Your task to perform on an android device: open app "WhatsApp Messenger" Image 0: 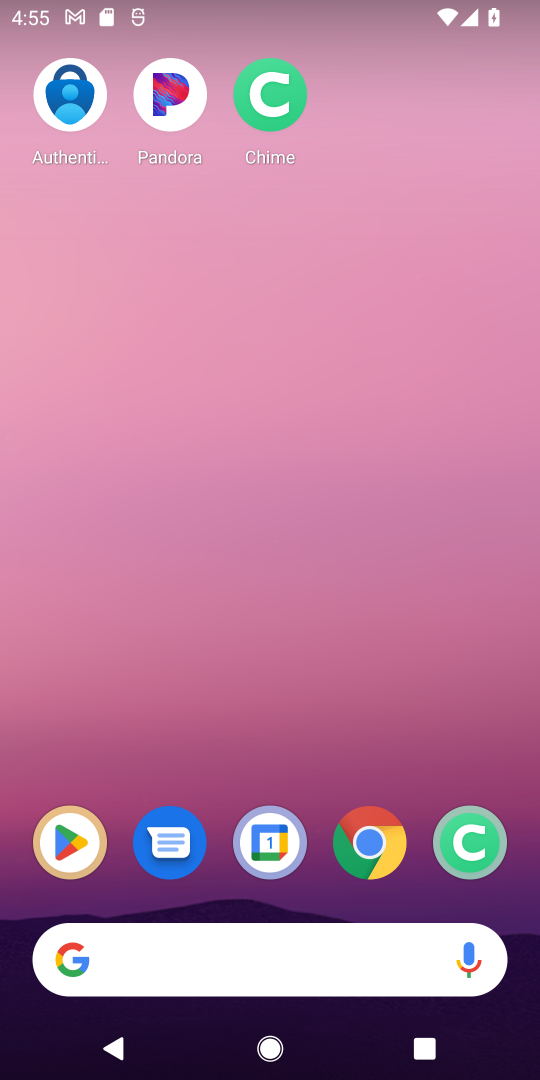
Step 0: drag from (340, 980) to (226, 451)
Your task to perform on an android device: open app "WhatsApp Messenger" Image 1: 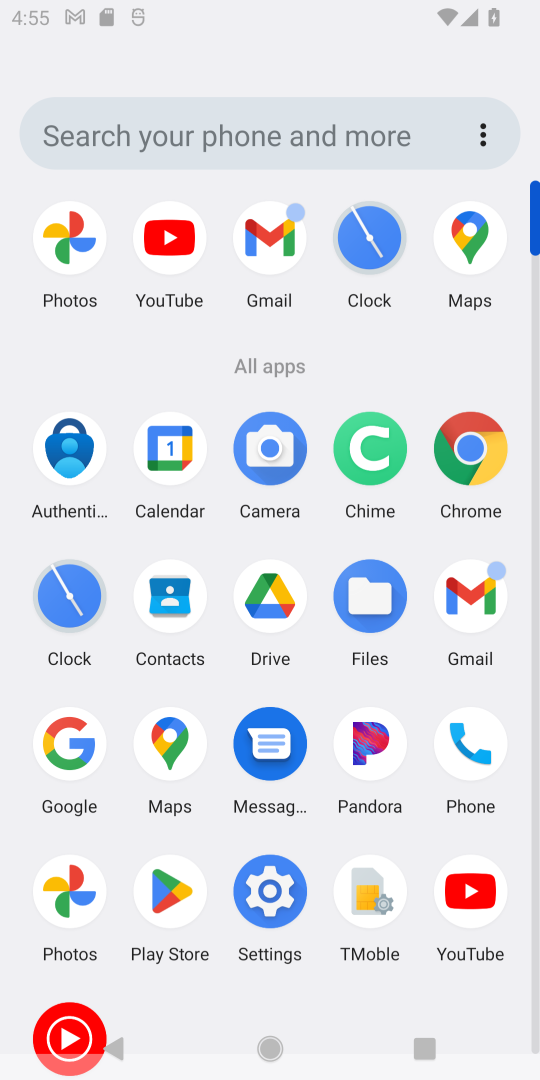
Step 1: click (184, 328)
Your task to perform on an android device: open app "WhatsApp Messenger" Image 2: 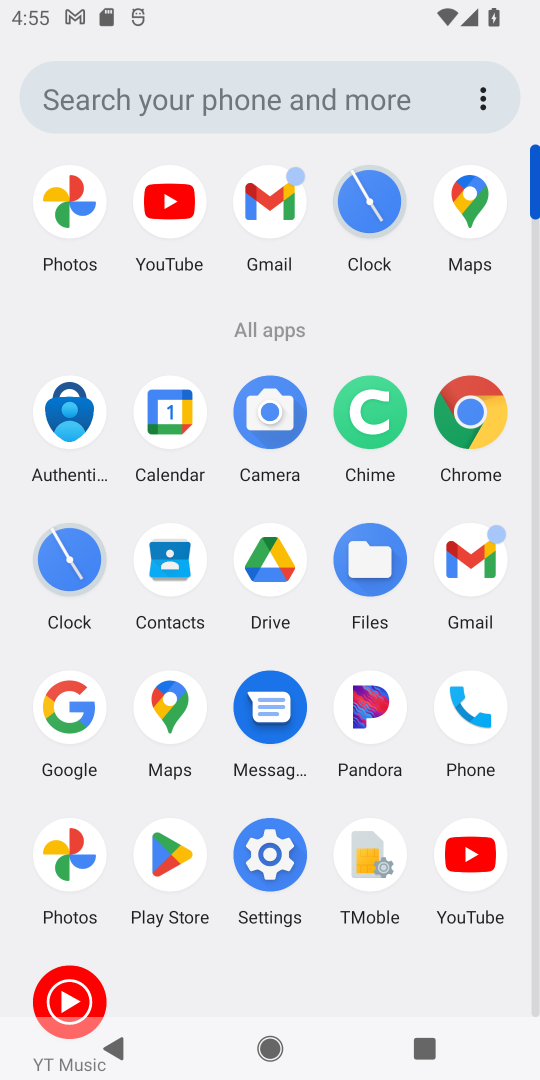
Step 2: drag from (231, 745) to (229, 263)
Your task to perform on an android device: open app "WhatsApp Messenger" Image 3: 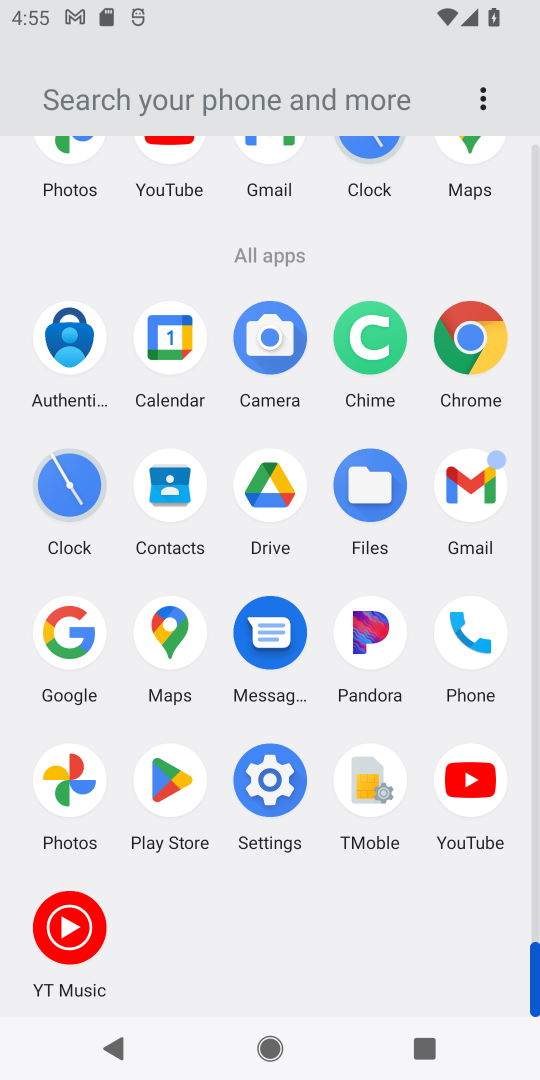
Step 3: click (180, 761)
Your task to perform on an android device: open app "WhatsApp Messenger" Image 4: 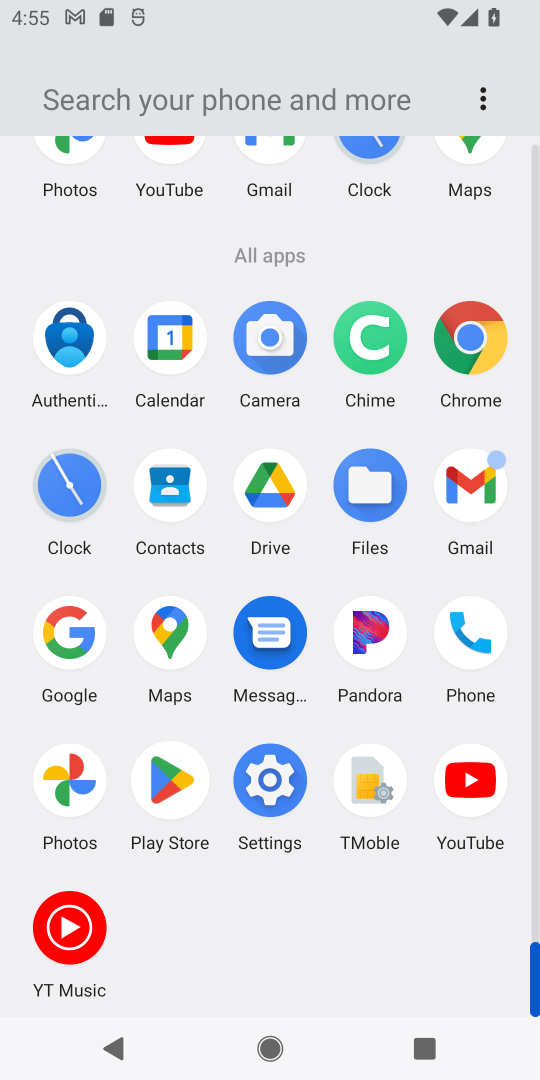
Step 4: click (186, 772)
Your task to perform on an android device: open app "WhatsApp Messenger" Image 5: 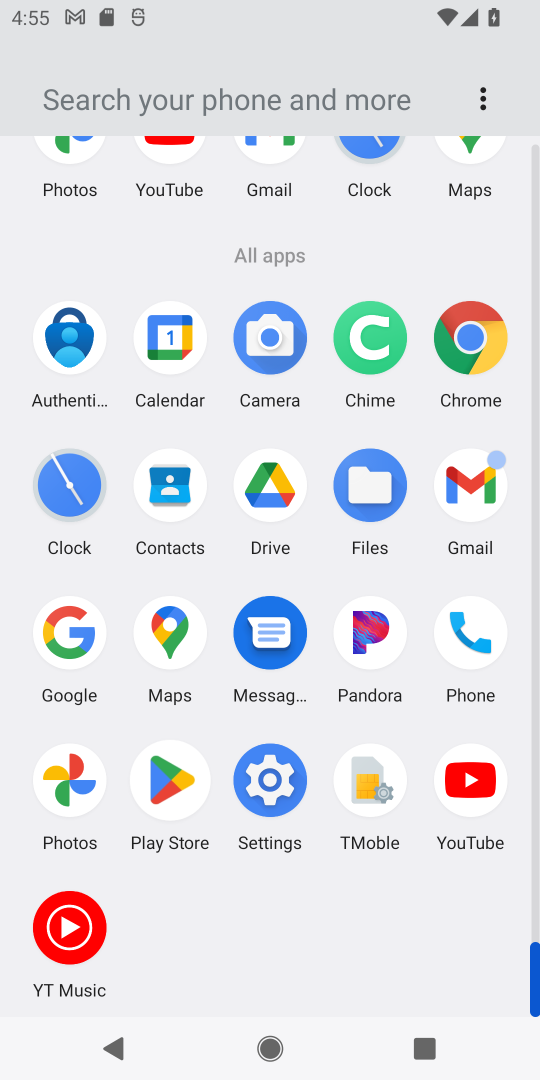
Step 5: click (188, 774)
Your task to perform on an android device: open app "WhatsApp Messenger" Image 6: 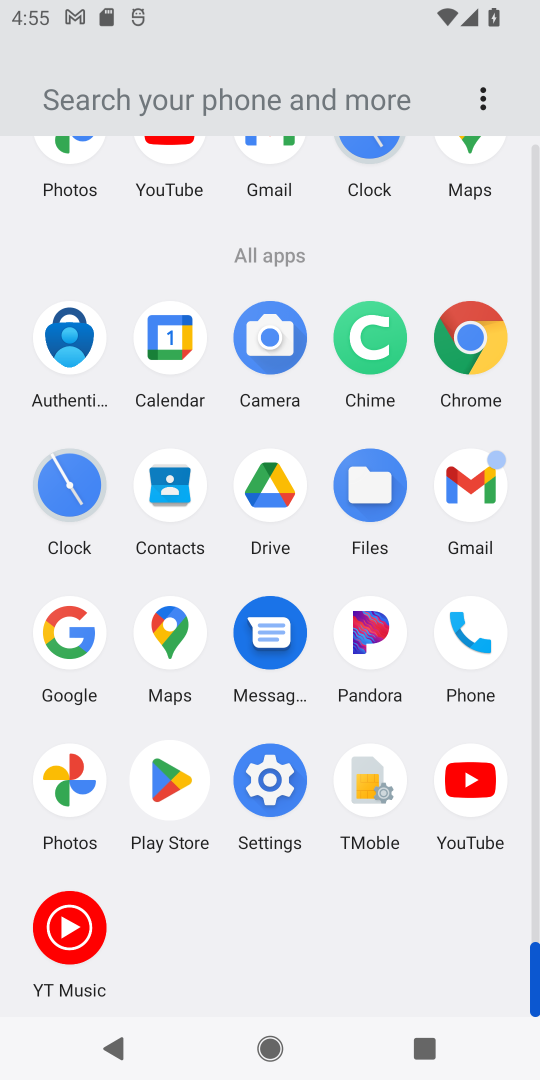
Step 6: click (188, 774)
Your task to perform on an android device: open app "WhatsApp Messenger" Image 7: 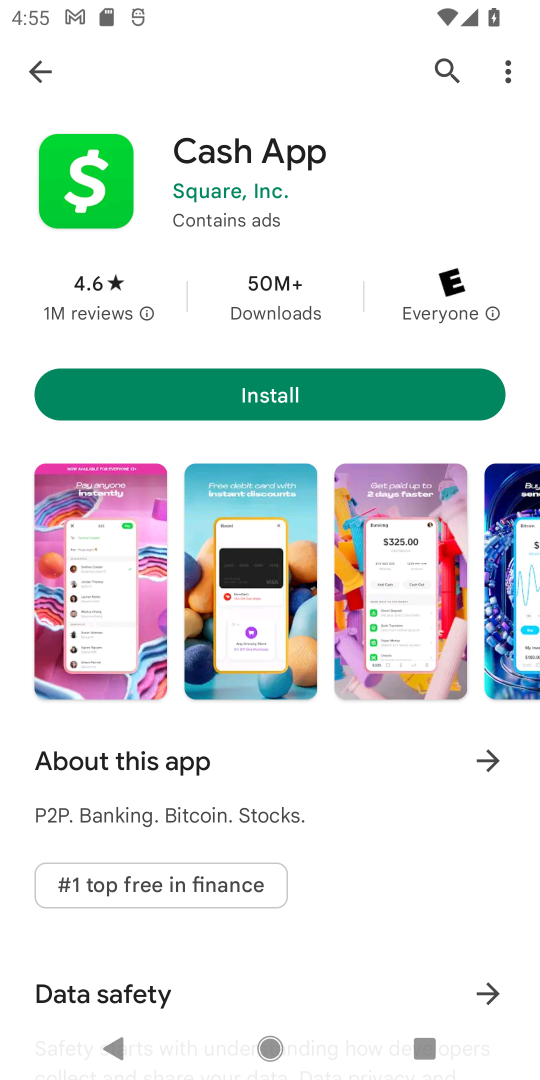
Step 7: click (39, 66)
Your task to perform on an android device: open app "WhatsApp Messenger" Image 8: 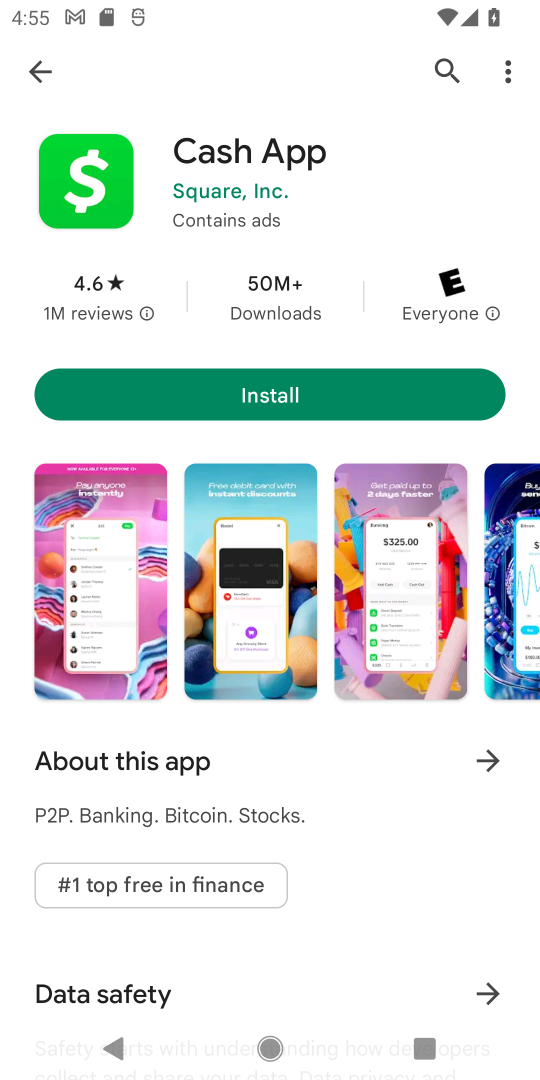
Step 8: click (40, 64)
Your task to perform on an android device: open app "WhatsApp Messenger" Image 9: 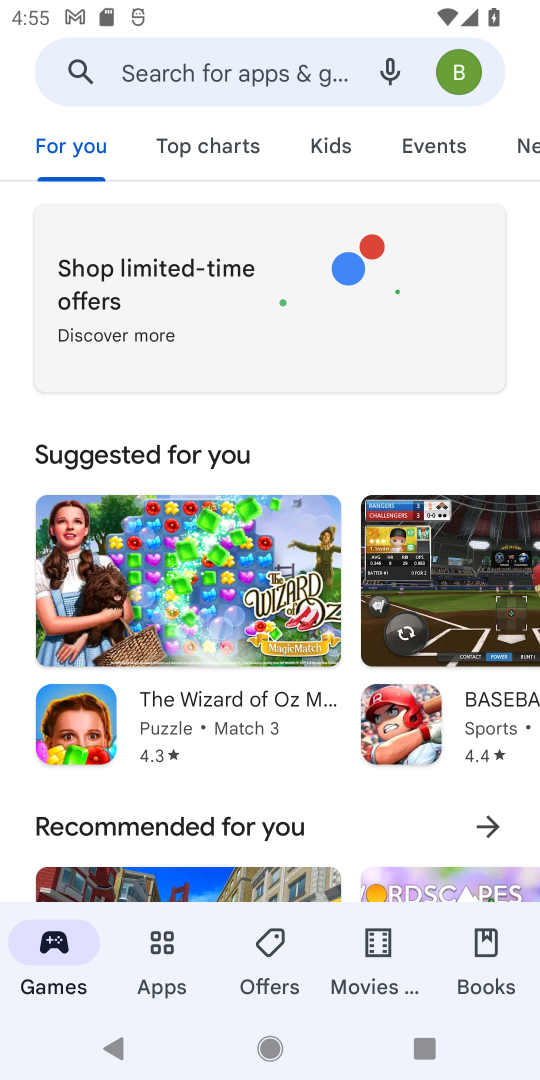
Step 9: click (138, 61)
Your task to perform on an android device: open app "WhatsApp Messenger" Image 10: 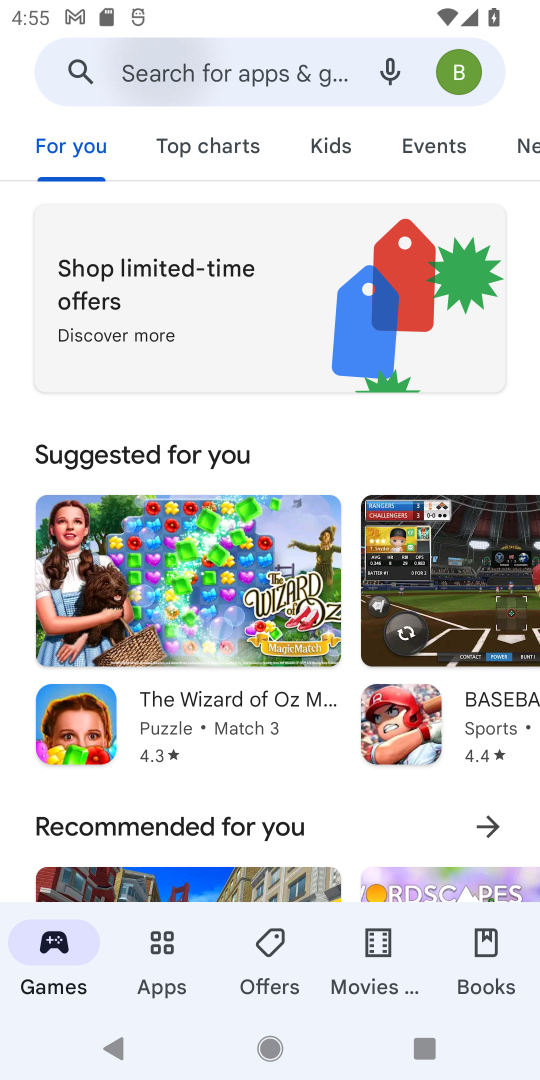
Step 10: click (142, 58)
Your task to perform on an android device: open app "WhatsApp Messenger" Image 11: 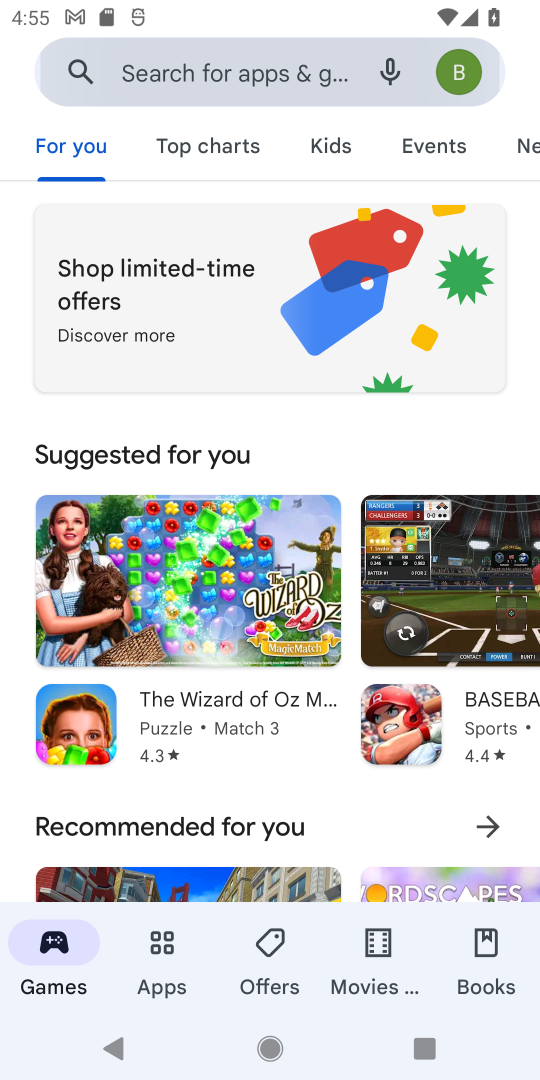
Step 11: click (142, 58)
Your task to perform on an android device: open app "WhatsApp Messenger" Image 12: 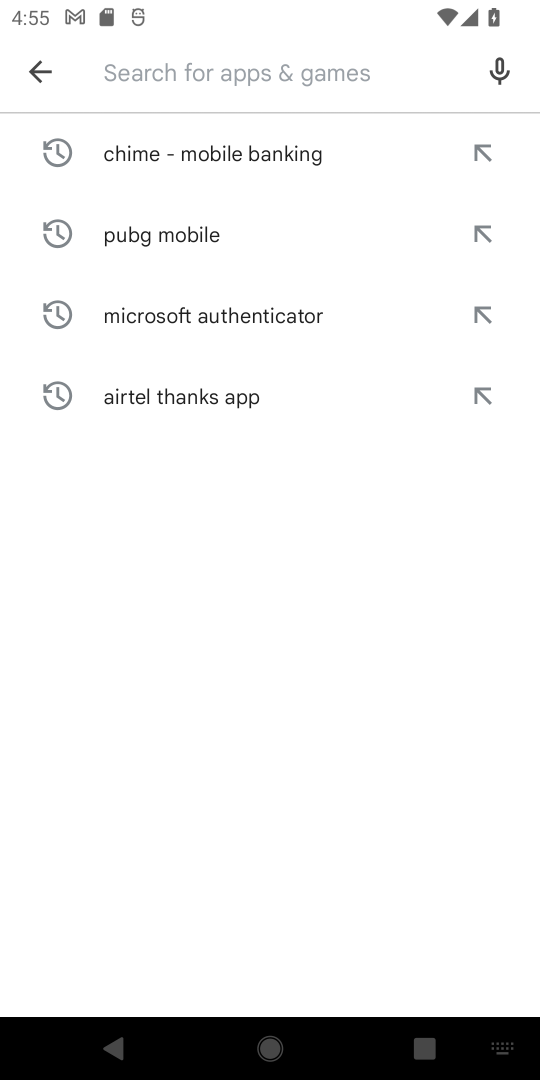
Step 12: type "whats"
Your task to perform on an android device: open app "WhatsApp Messenger" Image 13: 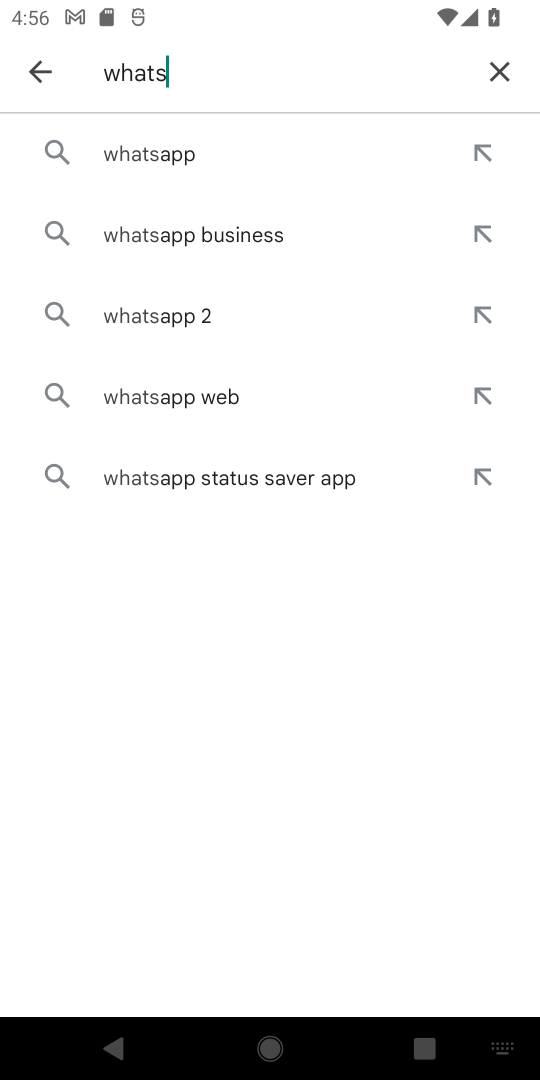
Step 13: type "whatsApp Messenger"
Your task to perform on an android device: open app "WhatsApp Messenger" Image 14: 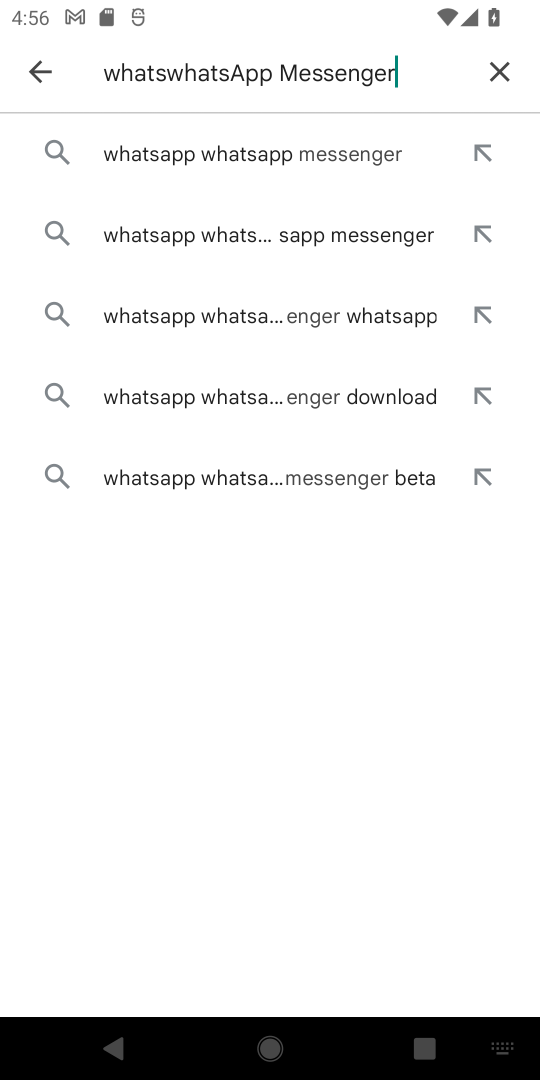
Step 14: click (294, 161)
Your task to perform on an android device: open app "WhatsApp Messenger" Image 15: 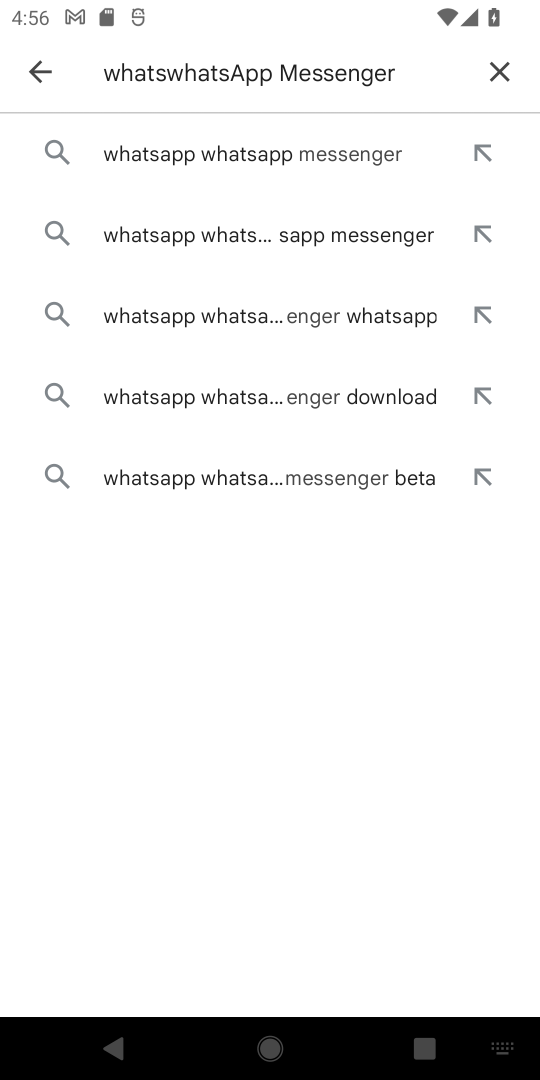
Step 15: click (296, 160)
Your task to perform on an android device: open app "WhatsApp Messenger" Image 16: 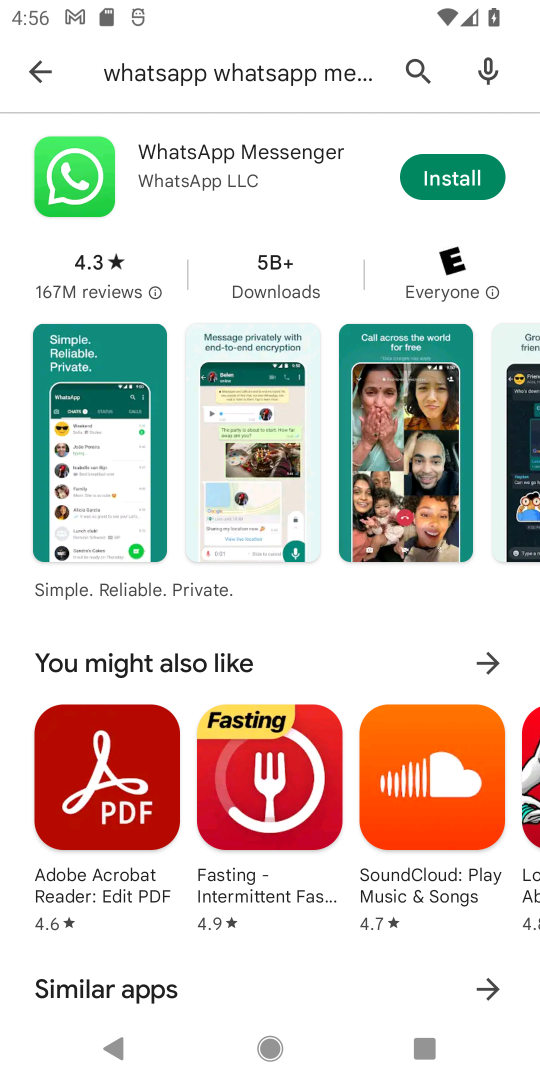
Step 16: click (450, 175)
Your task to perform on an android device: open app "WhatsApp Messenger" Image 17: 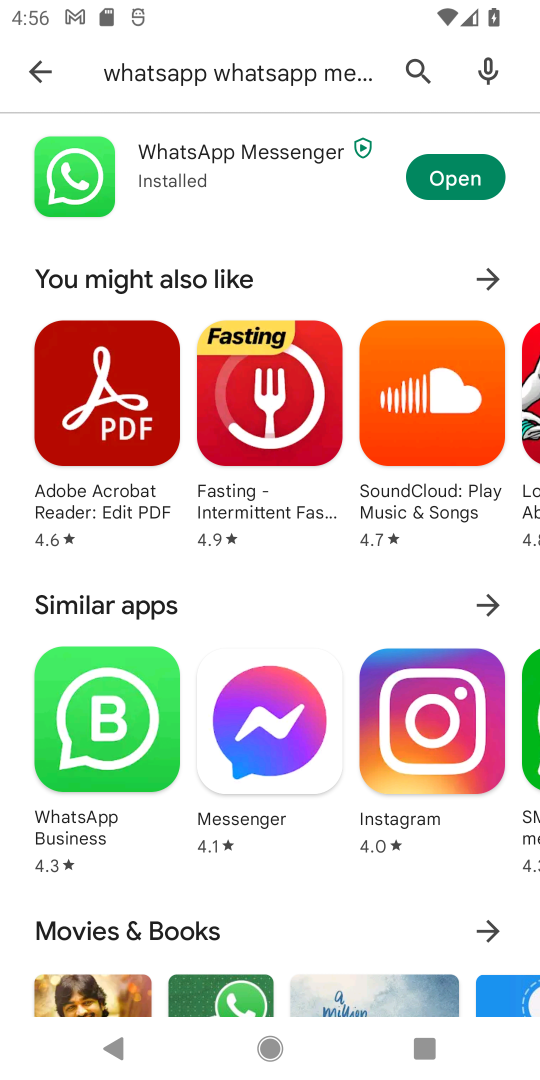
Step 17: click (463, 177)
Your task to perform on an android device: open app "WhatsApp Messenger" Image 18: 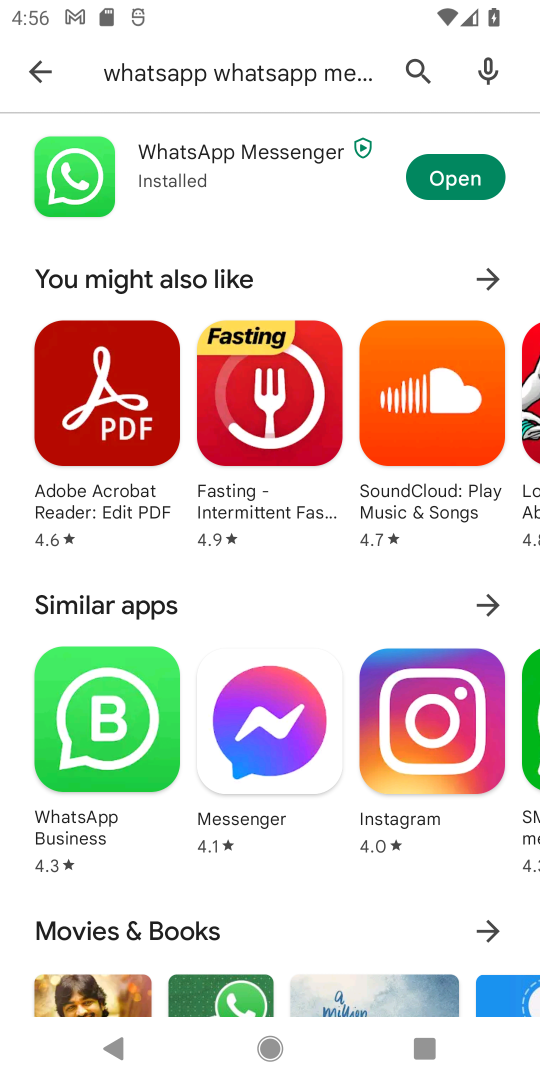
Step 18: click (461, 177)
Your task to perform on an android device: open app "WhatsApp Messenger" Image 19: 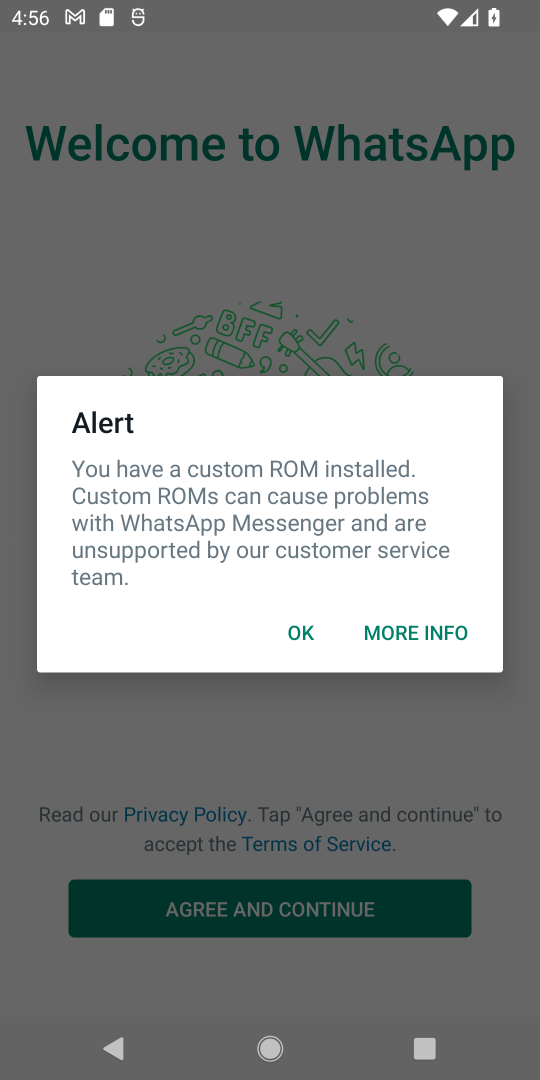
Step 19: click (294, 633)
Your task to perform on an android device: open app "WhatsApp Messenger" Image 20: 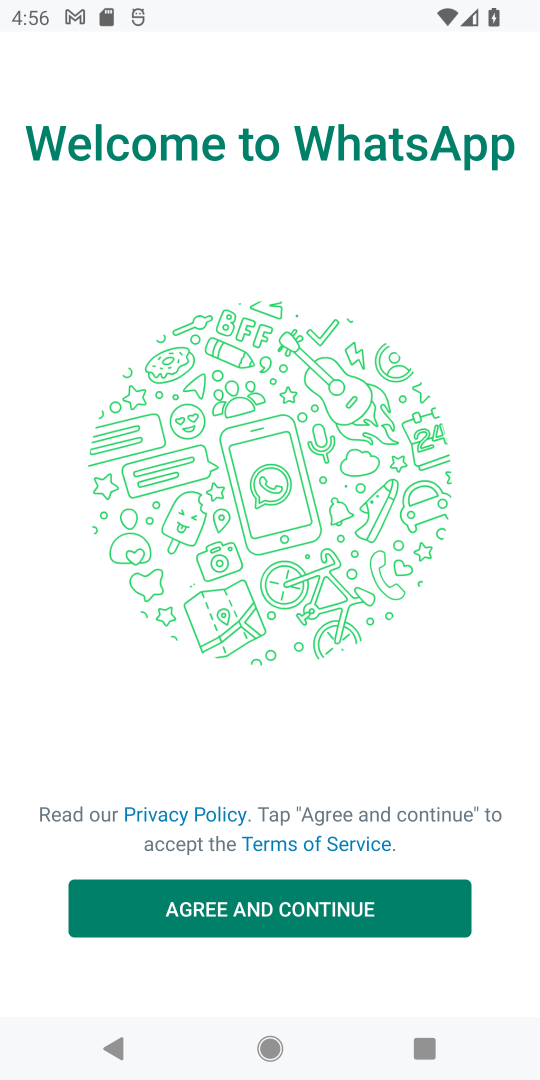
Step 20: task complete